Your task to perform on an android device: delete location history Image 0: 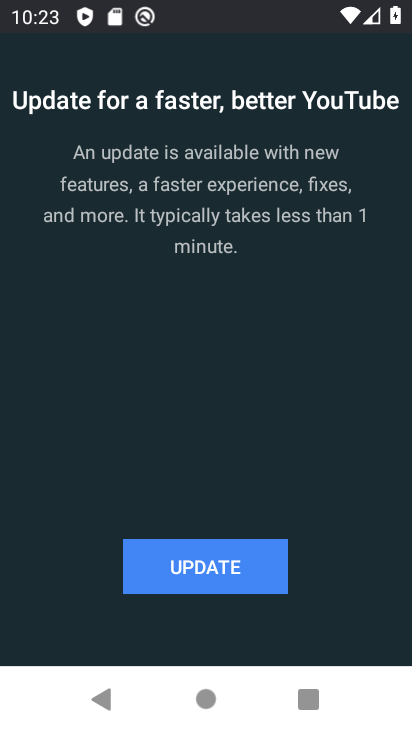
Step 0: press home button
Your task to perform on an android device: delete location history Image 1: 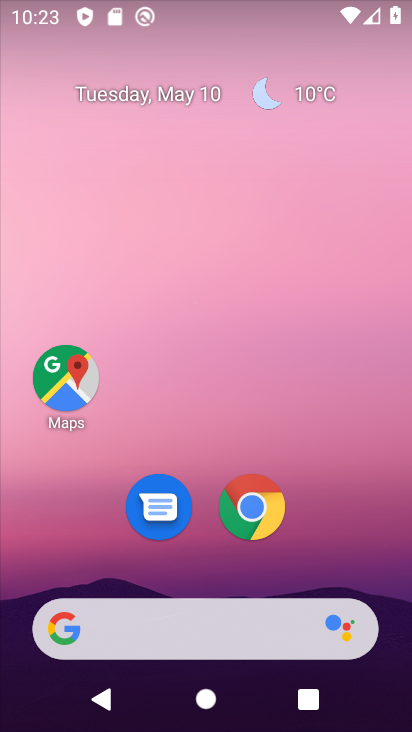
Step 1: drag from (247, 725) to (264, 178)
Your task to perform on an android device: delete location history Image 2: 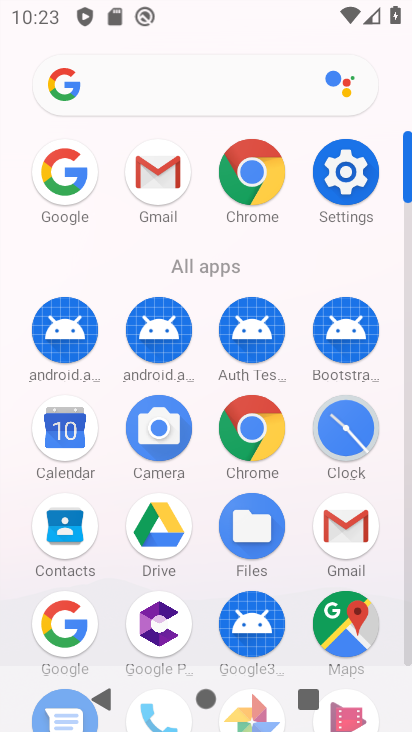
Step 2: click (352, 612)
Your task to perform on an android device: delete location history Image 3: 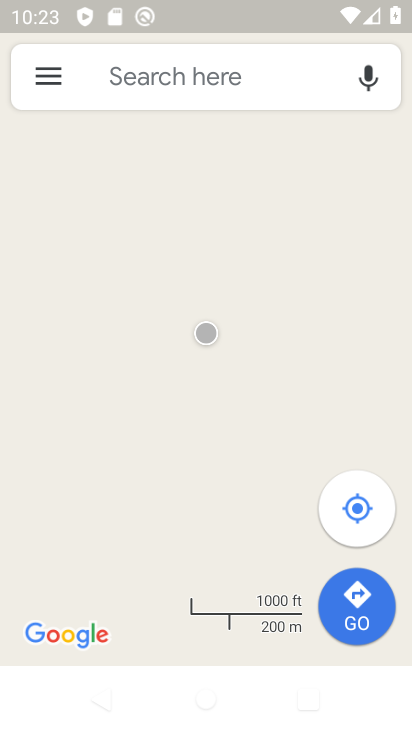
Step 3: click (46, 73)
Your task to perform on an android device: delete location history Image 4: 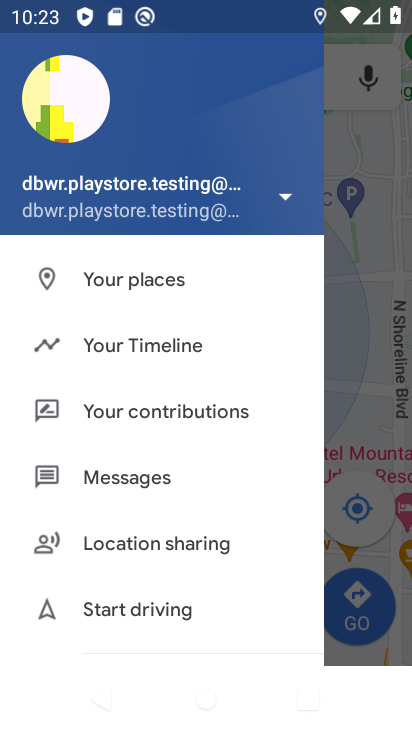
Step 4: click (136, 346)
Your task to perform on an android device: delete location history Image 5: 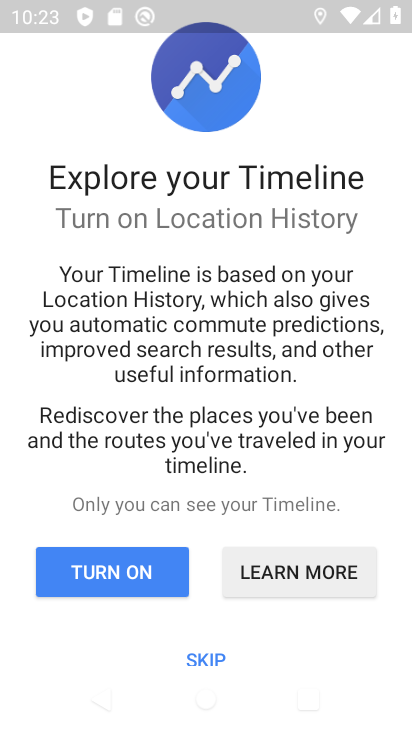
Step 5: click (206, 654)
Your task to perform on an android device: delete location history Image 6: 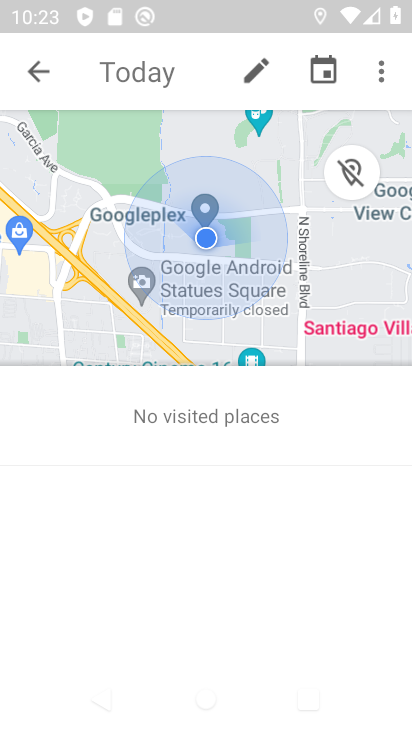
Step 6: click (382, 71)
Your task to perform on an android device: delete location history Image 7: 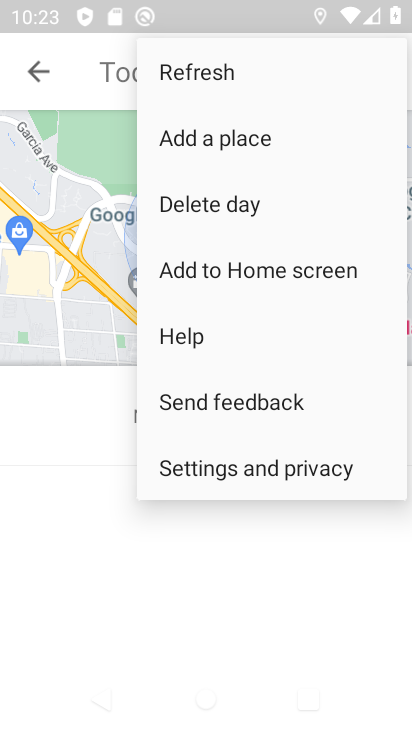
Step 7: click (266, 473)
Your task to perform on an android device: delete location history Image 8: 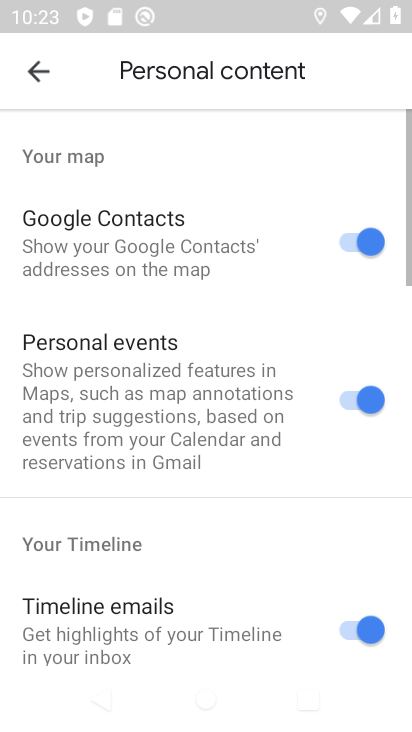
Step 8: drag from (223, 637) to (227, 233)
Your task to perform on an android device: delete location history Image 9: 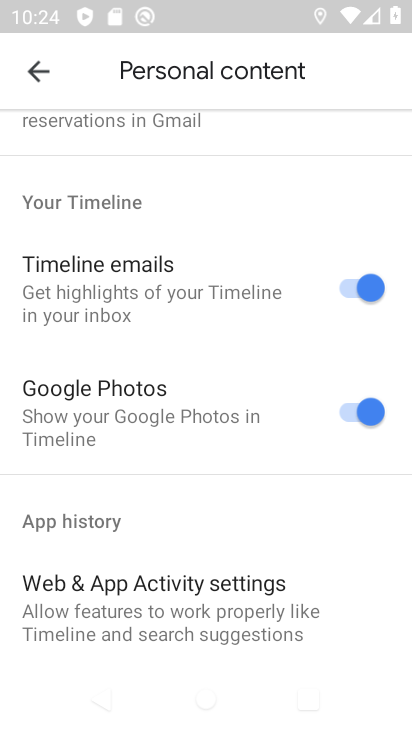
Step 9: drag from (180, 637) to (191, 227)
Your task to perform on an android device: delete location history Image 10: 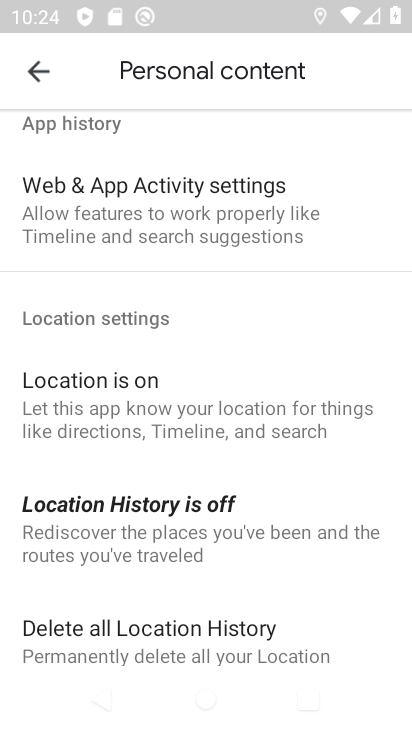
Step 10: click (194, 625)
Your task to perform on an android device: delete location history Image 11: 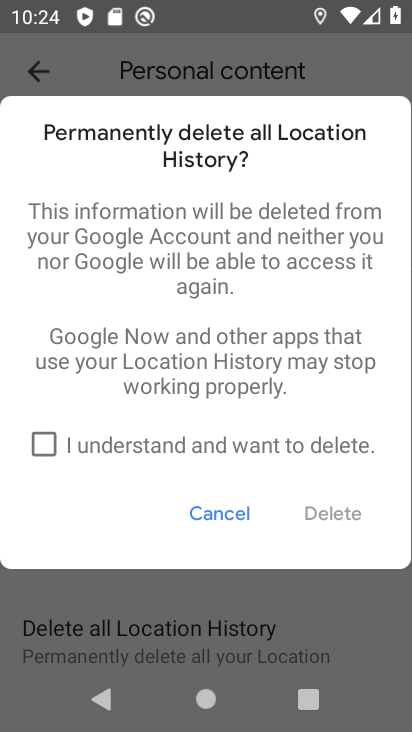
Step 11: click (34, 444)
Your task to perform on an android device: delete location history Image 12: 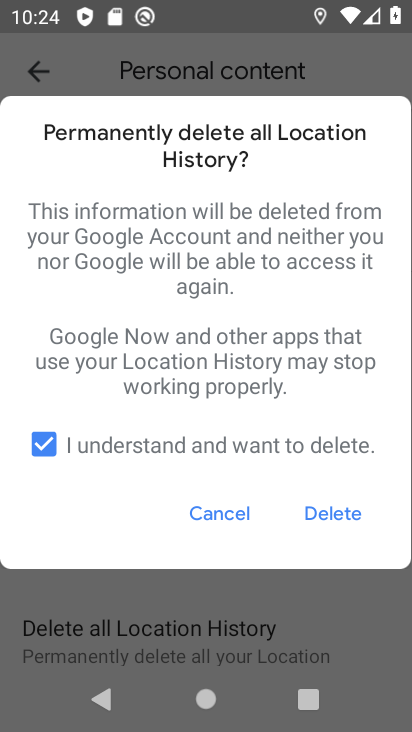
Step 12: click (331, 509)
Your task to perform on an android device: delete location history Image 13: 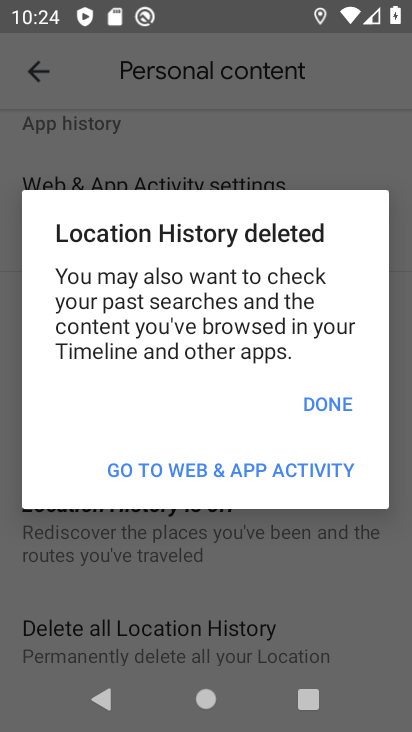
Step 13: click (330, 402)
Your task to perform on an android device: delete location history Image 14: 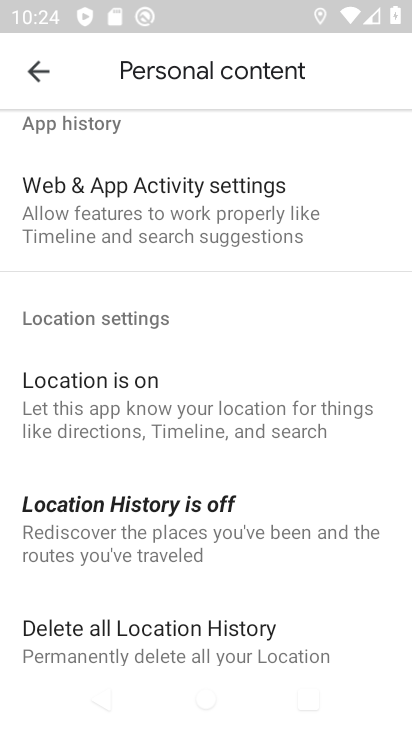
Step 14: task complete